Your task to perform on an android device: Open Yahoo.com Image 0: 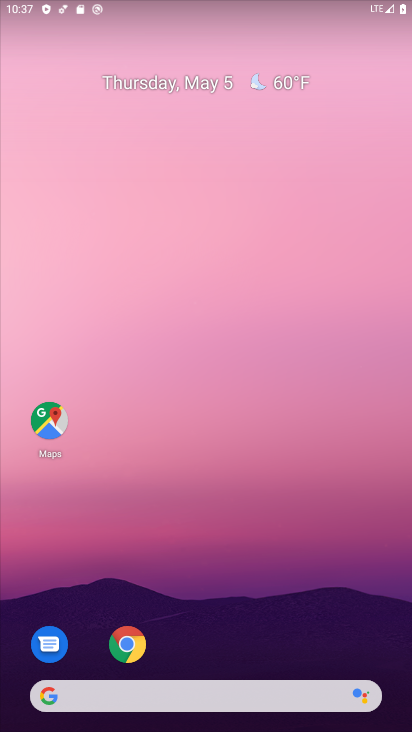
Step 0: drag from (345, 633) to (323, 201)
Your task to perform on an android device: Open Yahoo.com Image 1: 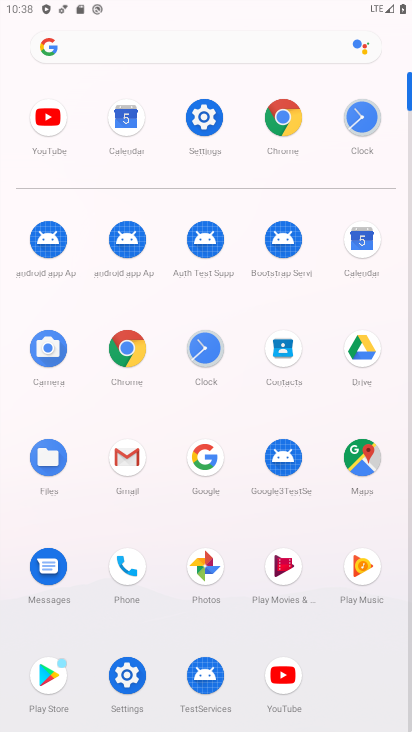
Step 1: click (117, 356)
Your task to perform on an android device: Open Yahoo.com Image 2: 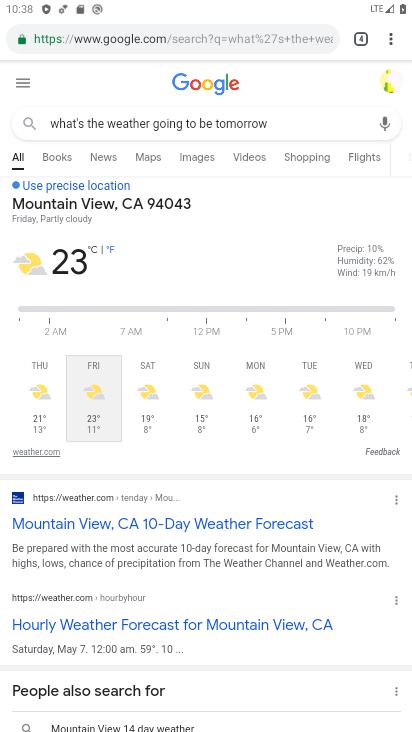
Step 2: click (211, 42)
Your task to perform on an android device: Open Yahoo.com Image 3: 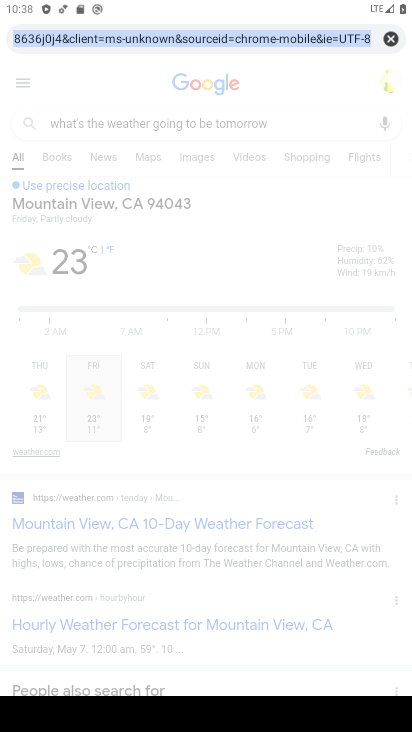
Step 3: click (392, 44)
Your task to perform on an android device: Open Yahoo.com Image 4: 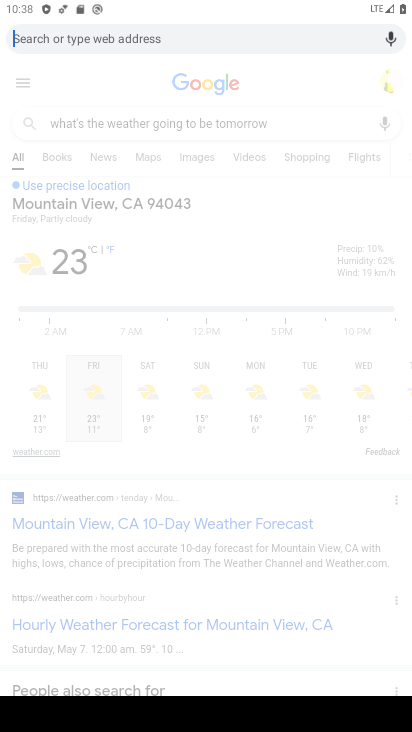
Step 4: type "yahoo.com"
Your task to perform on an android device: Open Yahoo.com Image 5: 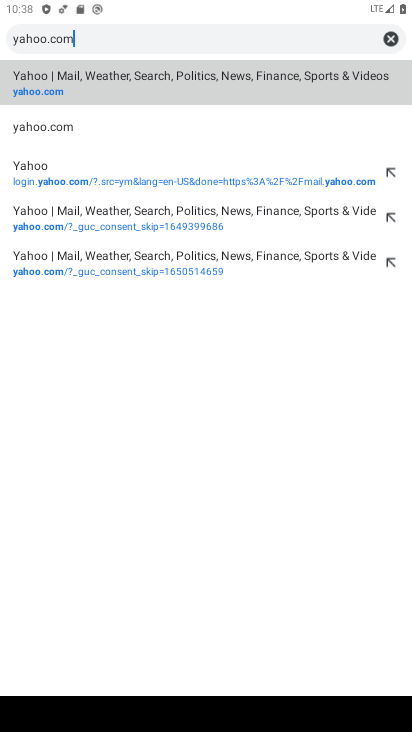
Step 5: click (37, 122)
Your task to perform on an android device: Open Yahoo.com Image 6: 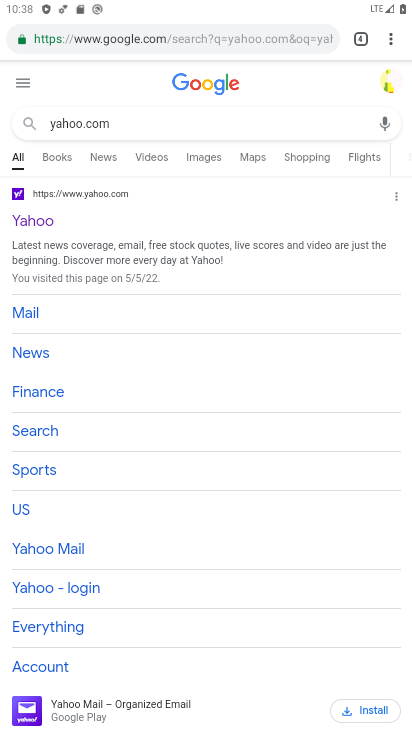
Step 6: click (39, 223)
Your task to perform on an android device: Open Yahoo.com Image 7: 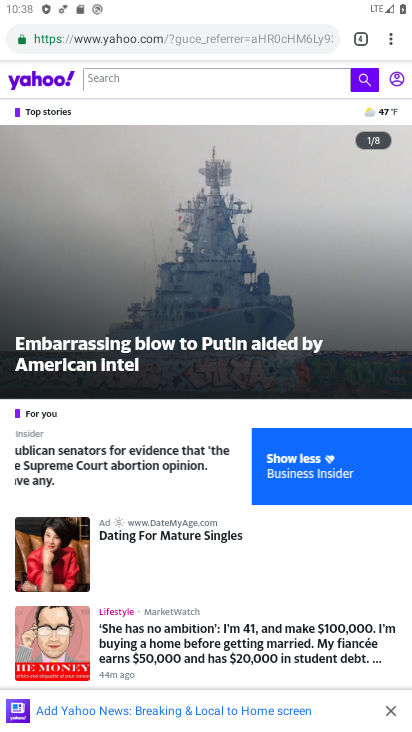
Step 7: task complete